Your task to perform on an android device: check android version Image 0: 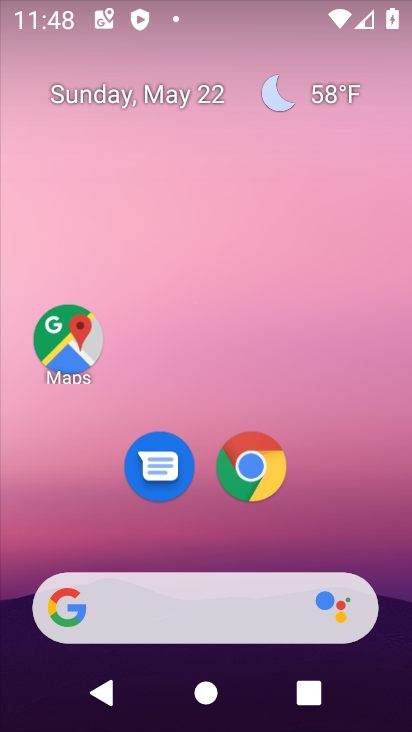
Step 0: drag from (216, 537) to (226, 81)
Your task to perform on an android device: check android version Image 1: 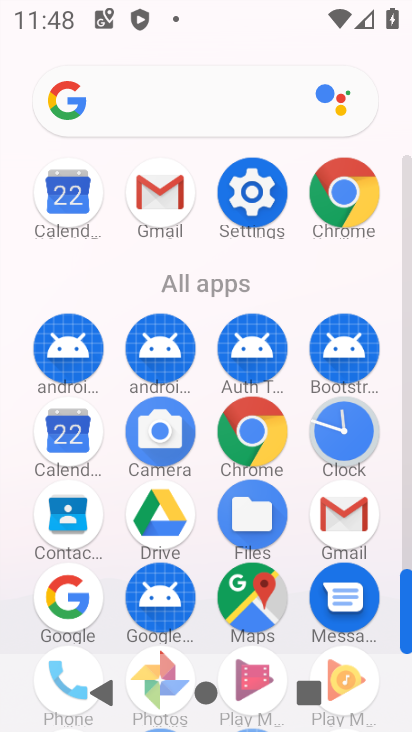
Step 1: click (255, 196)
Your task to perform on an android device: check android version Image 2: 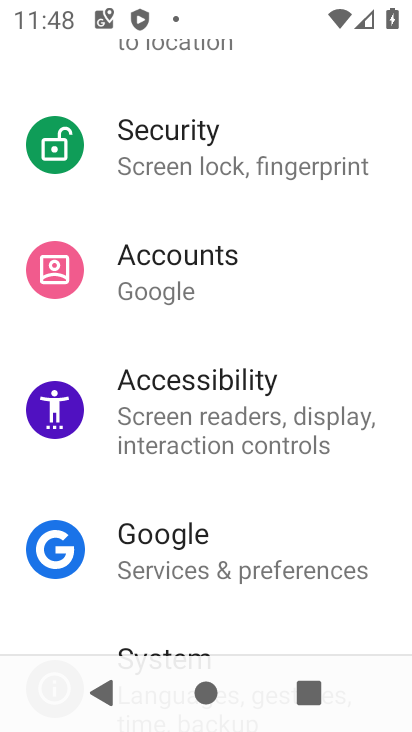
Step 2: drag from (259, 600) to (233, 108)
Your task to perform on an android device: check android version Image 3: 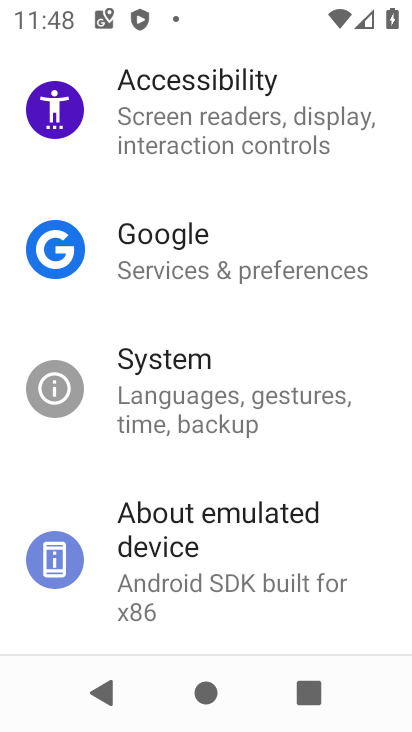
Step 3: drag from (225, 572) to (217, 138)
Your task to perform on an android device: check android version Image 4: 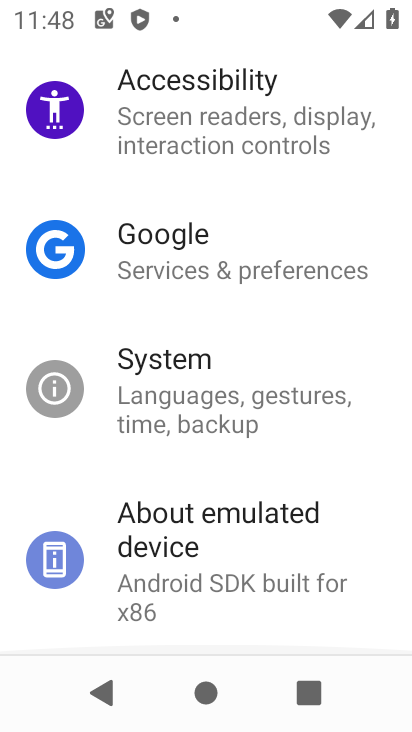
Step 4: click (217, 566)
Your task to perform on an android device: check android version Image 5: 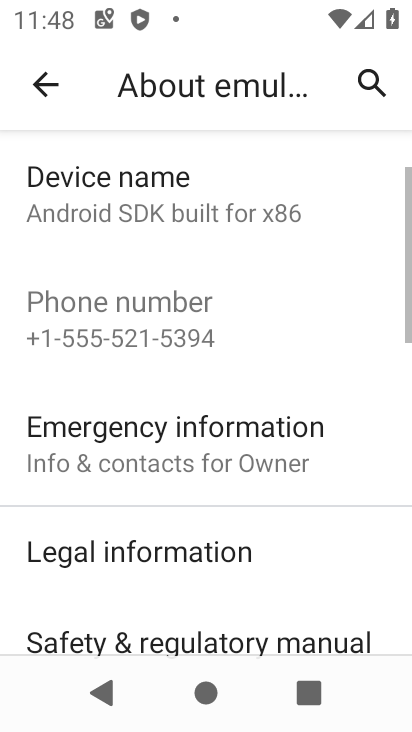
Step 5: drag from (260, 533) to (249, 86)
Your task to perform on an android device: check android version Image 6: 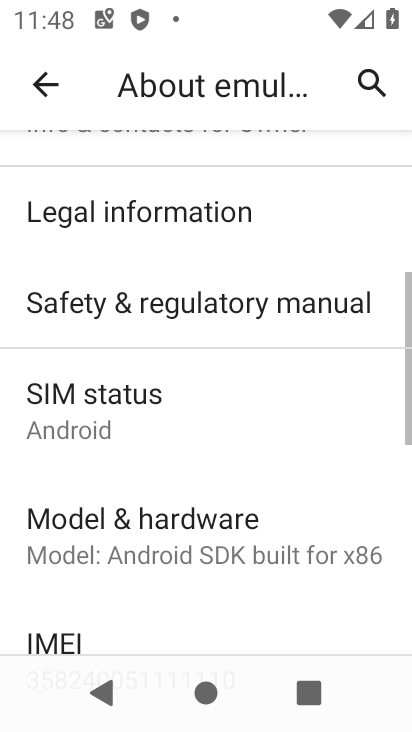
Step 6: drag from (205, 610) to (219, 165)
Your task to perform on an android device: check android version Image 7: 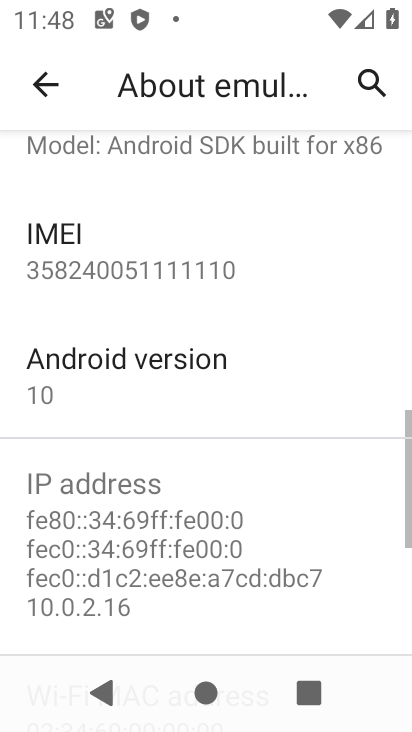
Step 7: click (181, 370)
Your task to perform on an android device: check android version Image 8: 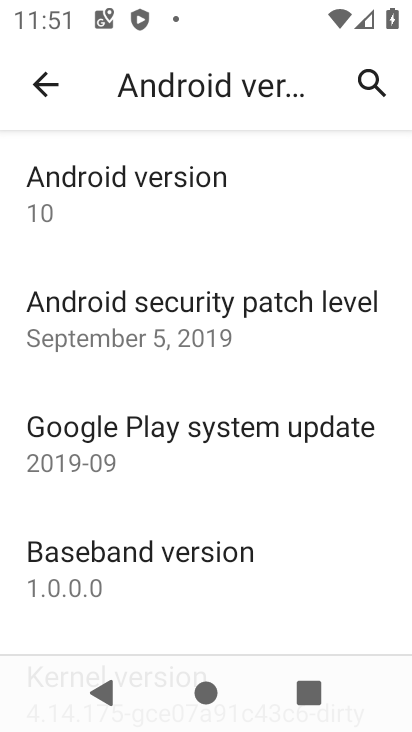
Step 8: task complete